Your task to perform on an android device: turn off wifi Image 0: 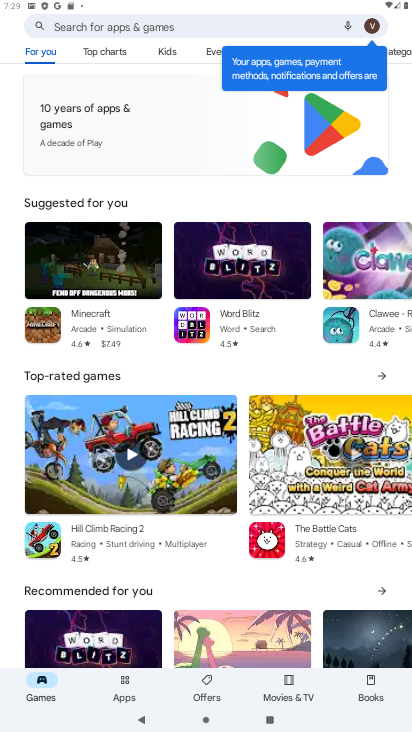
Step 0: press home button
Your task to perform on an android device: turn off wifi Image 1: 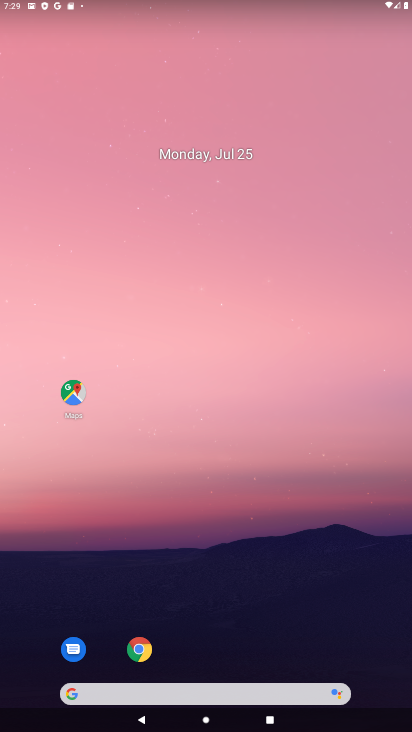
Step 1: drag from (213, 658) to (215, 238)
Your task to perform on an android device: turn off wifi Image 2: 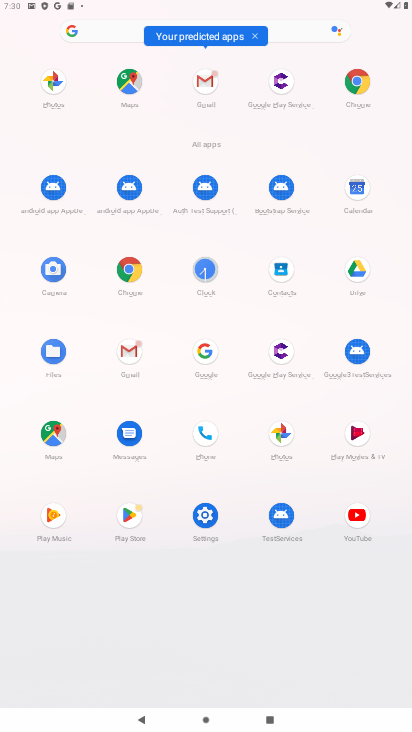
Step 2: click (205, 512)
Your task to perform on an android device: turn off wifi Image 3: 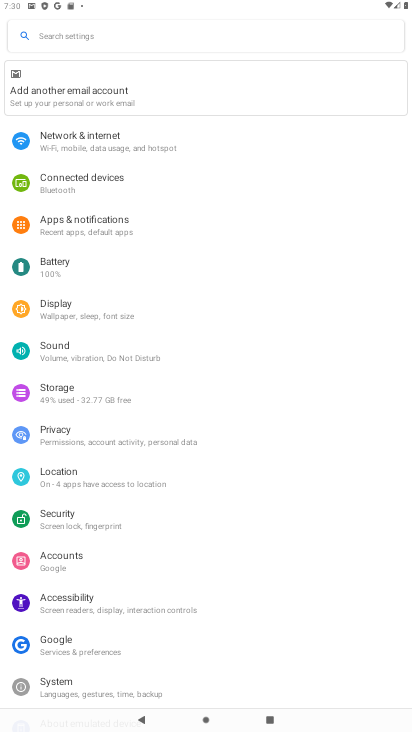
Step 3: click (75, 132)
Your task to perform on an android device: turn off wifi Image 4: 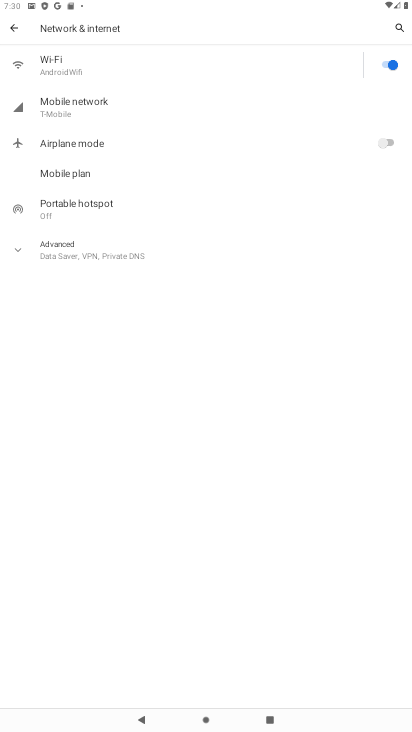
Step 4: click (386, 58)
Your task to perform on an android device: turn off wifi Image 5: 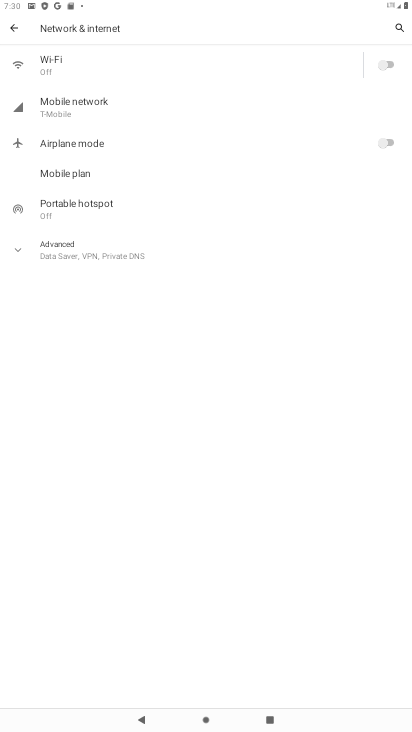
Step 5: task complete